Your task to perform on an android device: open app "Messages" (install if not already installed) and enter user name: "Hersey@inbox.com" and password: "facings" Image 0: 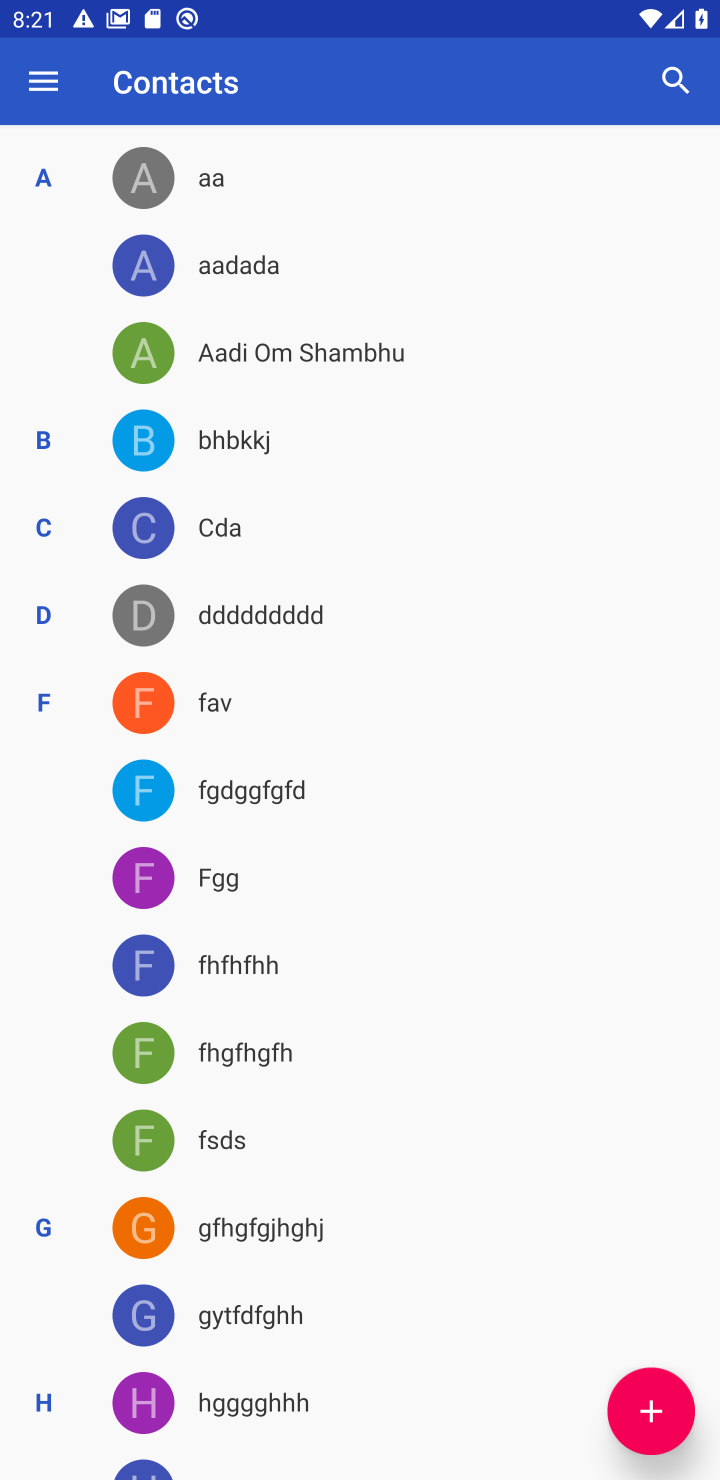
Step 0: press home button
Your task to perform on an android device: open app "Messages" (install if not already installed) and enter user name: "Hersey@inbox.com" and password: "facings" Image 1: 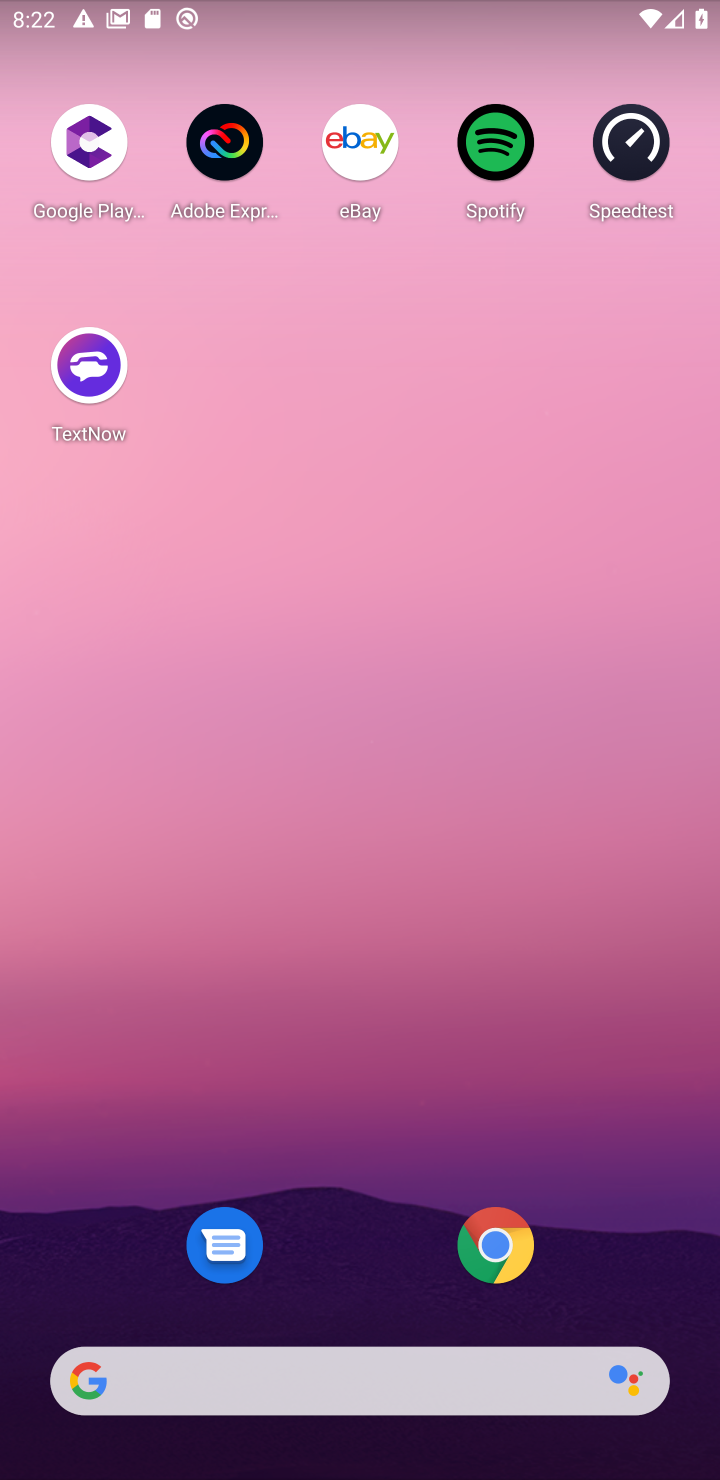
Step 1: drag from (370, 1314) to (332, 455)
Your task to perform on an android device: open app "Messages" (install if not already installed) and enter user name: "Hersey@inbox.com" and password: "facings" Image 2: 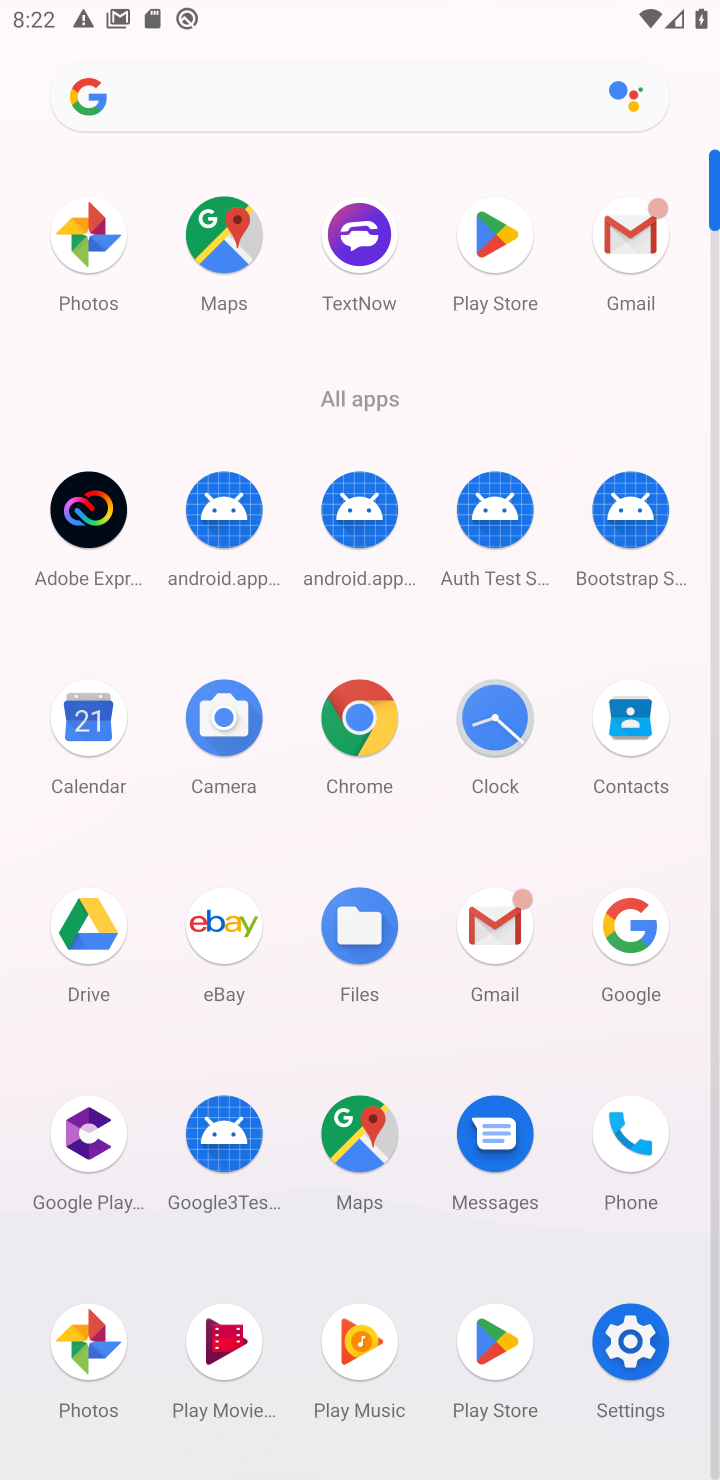
Step 2: click (489, 1154)
Your task to perform on an android device: open app "Messages" (install if not already installed) and enter user name: "Hersey@inbox.com" and password: "facings" Image 3: 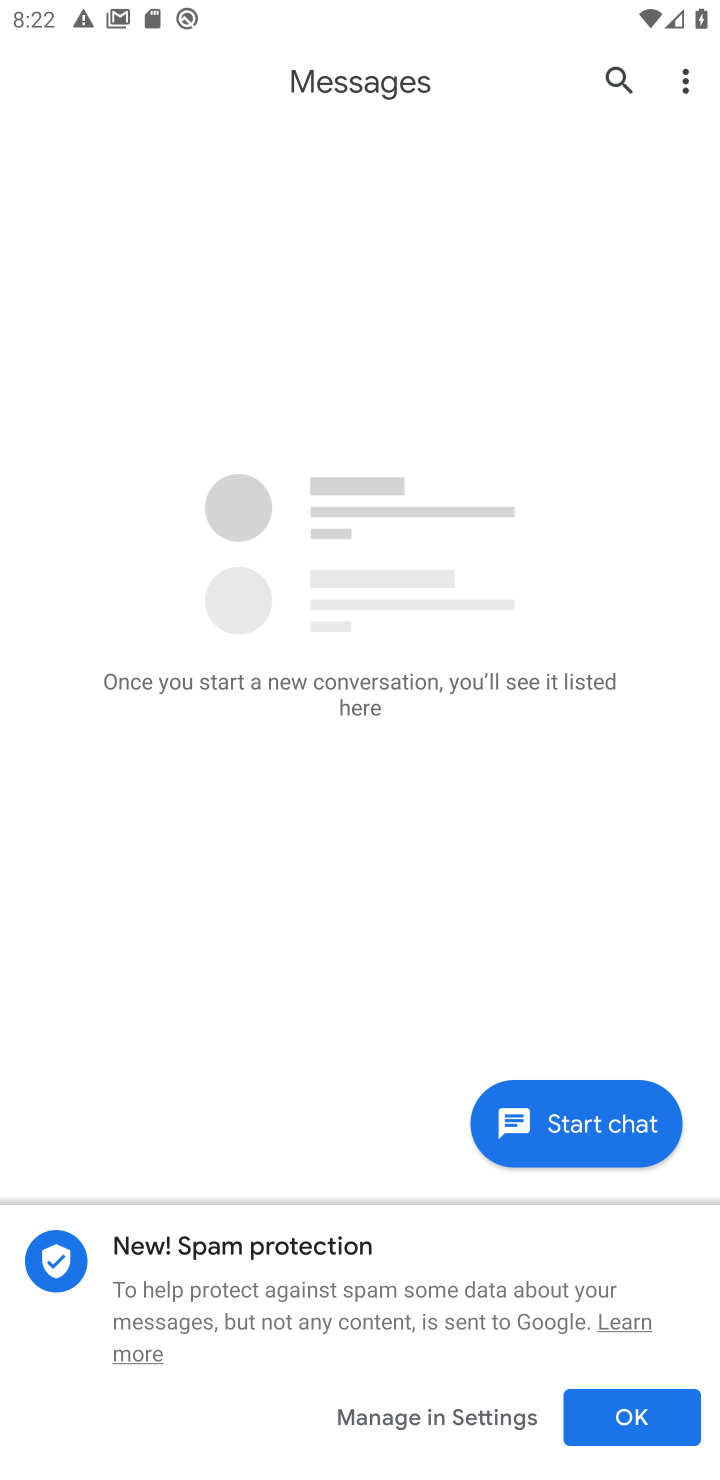
Step 3: click (614, 1412)
Your task to perform on an android device: open app "Messages" (install if not already installed) and enter user name: "Hersey@inbox.com" and password: "facings" Image 4: 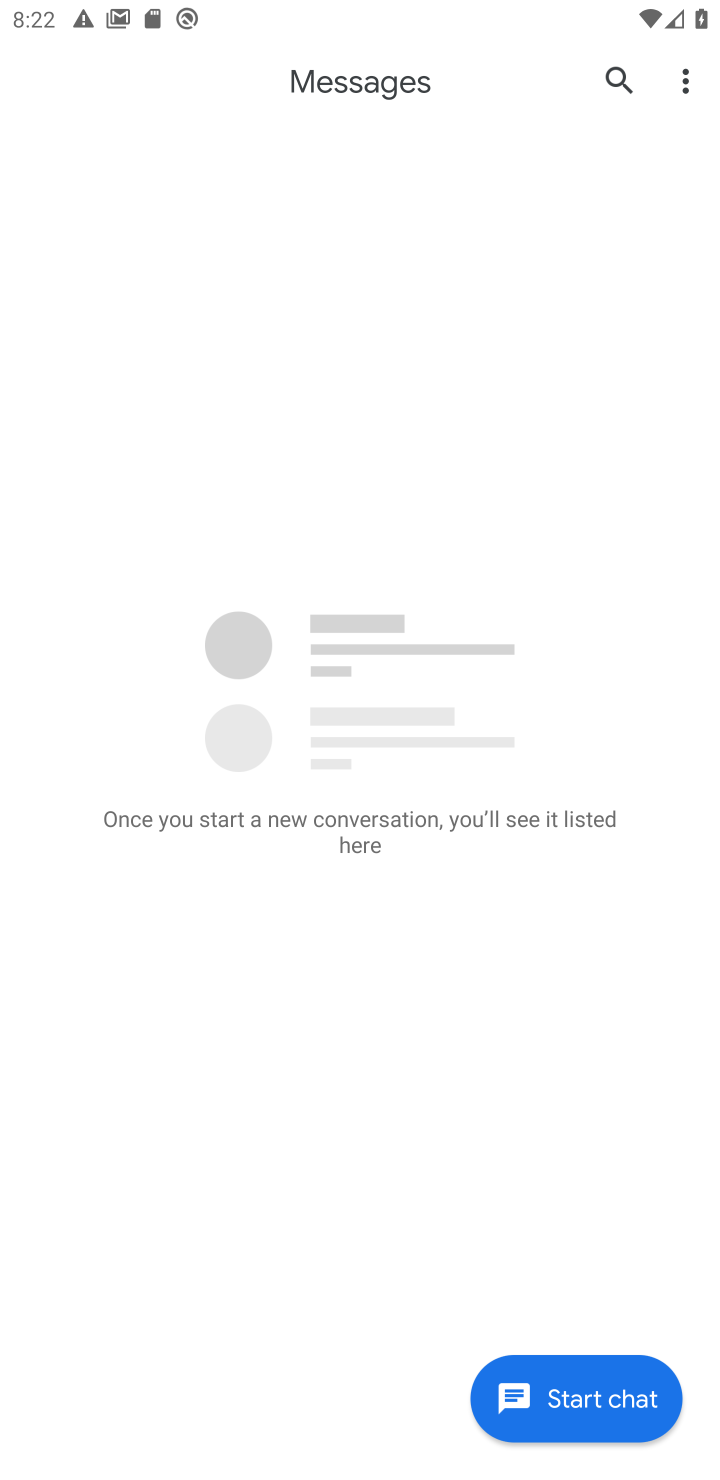
Step 4: task complete